Your task to perform on an android device: allow cookies in the chrome app Image 0: 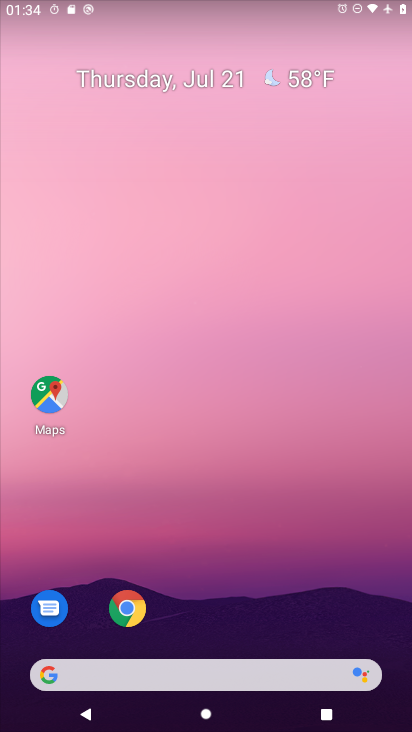
Step 0: press home button
Your task to perform on an android device: allow cookies in the chrome app Image 1: 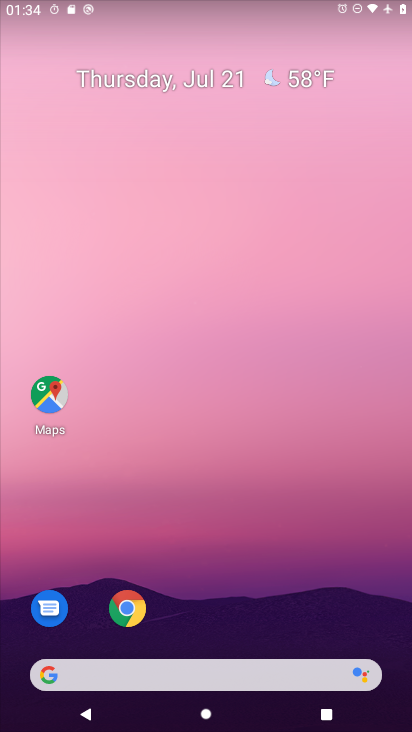
Step 1: drag from (255, 617) to (339, 20)
Your task to perform on an android device: allow cookies in the chrome app Image 2: 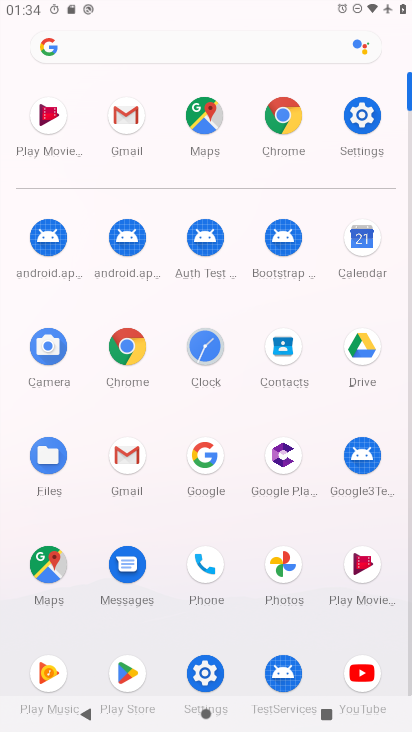
Step 2: click (288, 127)
Your task to perform on an android device: allow cookies in the chrome app Image 3: 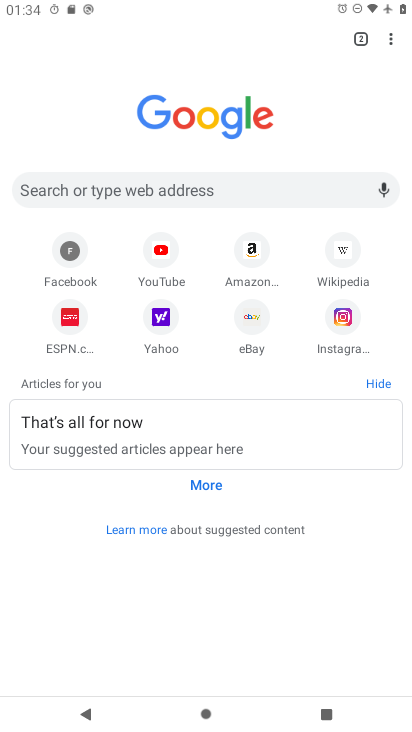
Step 3: drag from (389, 35) to (265, 322)
Your task to perform on an android device: allow cookies in the chrome app Image 4: 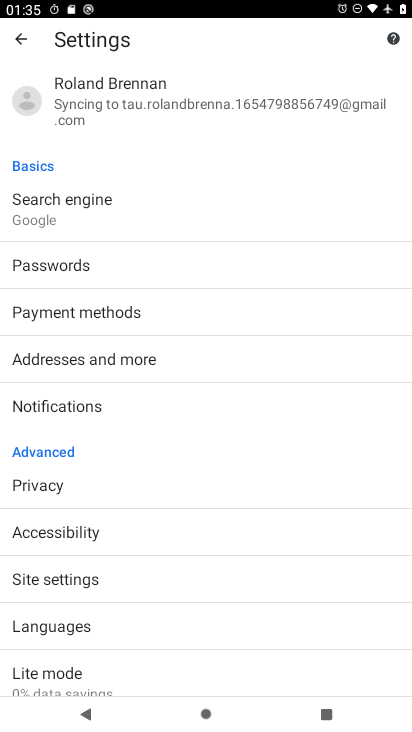
Step 4: click (51, 591)
Your task to perform on an android device: allow cookies in the chrome app Image 5: 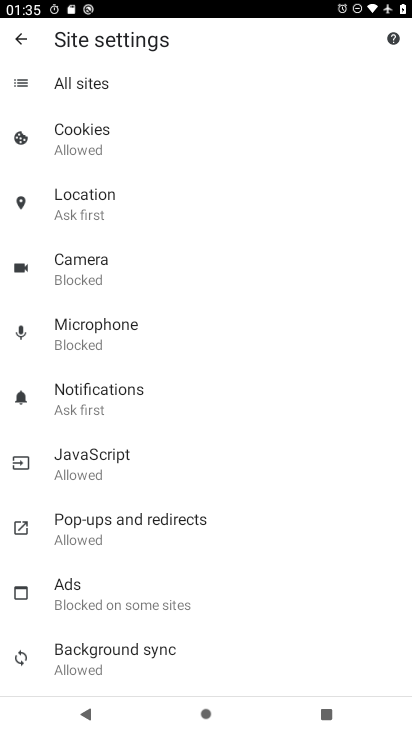
Step 5: click (76, 134)
Your task to perform on an android device: allow cookies in the chrome app Image 6: 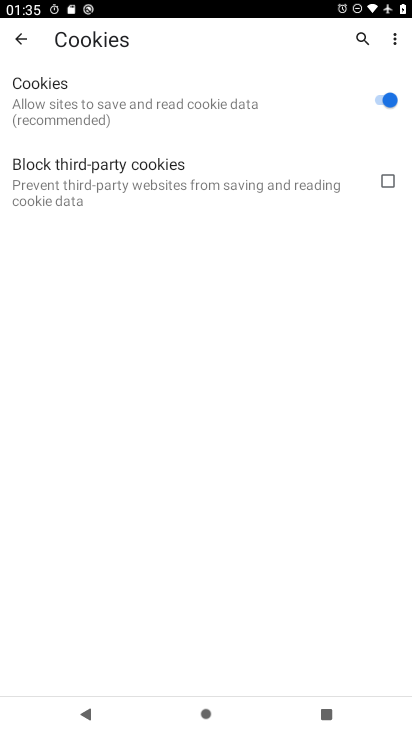
Step 6: task complete